Your task to perform on an android device: Go to accessibility settings Image 0: 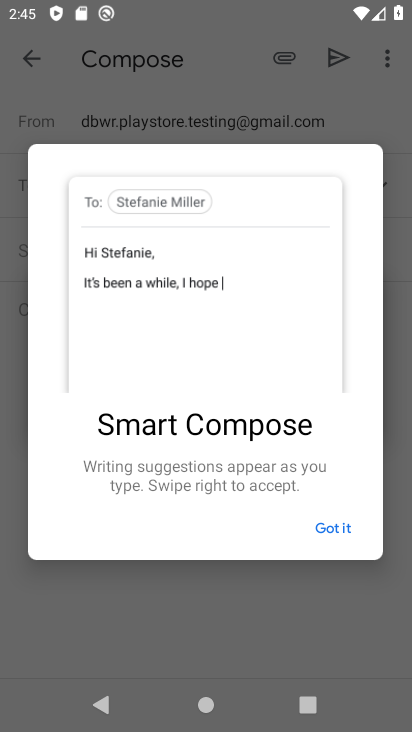
Step 0: press home button
Your task to perform on an android device: Go to accessibility settings Image 1: 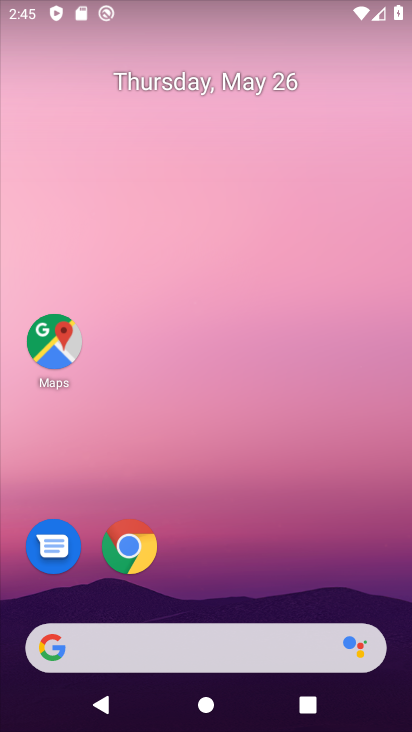
Step 1: drag from (388, 637) to (346, 221)
Your task to perform on an android device: Go to accessibility settings Image 2: 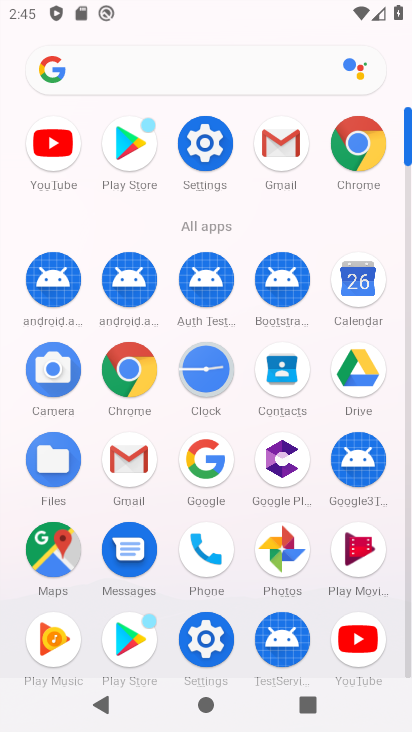
Step 2: click (202, 149)
Your task to perform on an android device: Go to accessibility settings Image 3: 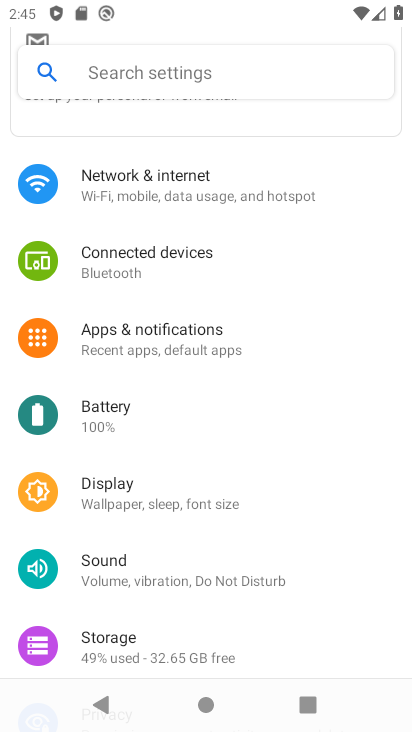
Step 3: drag from (331, 653) to (310, 259)
Your task to perform on an android device: Go to accessibility settings Image 4: 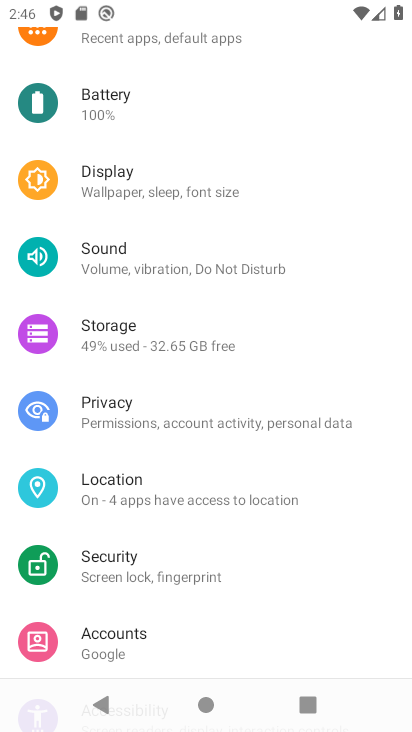
Step 4: drag from (355, 665) to (302, 358)
Your task to perform on an android device: Go to accessibility settings Image 5: 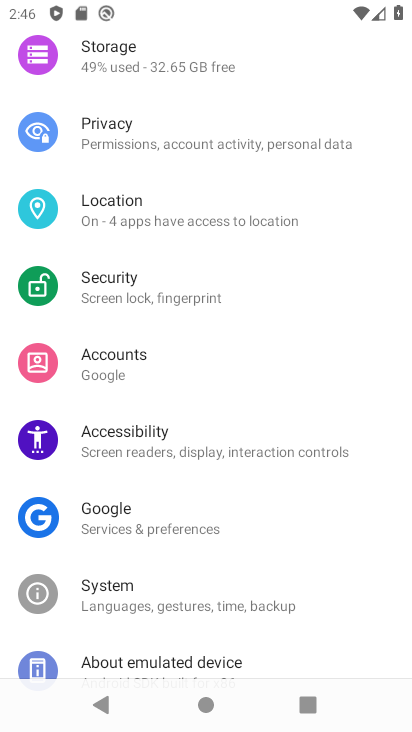
Step 5: click (110, 441)
Your task to perform on an android device: Go to accessibility settings Image 6: 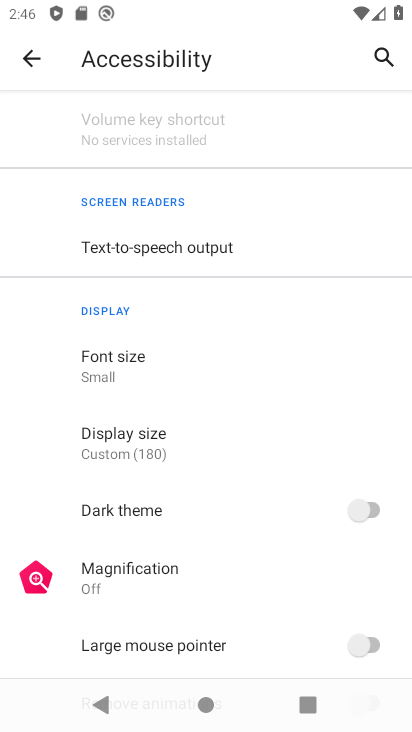
Step 6: task complete